Your task to perform on an android device: empty trash in google photos Image 0: 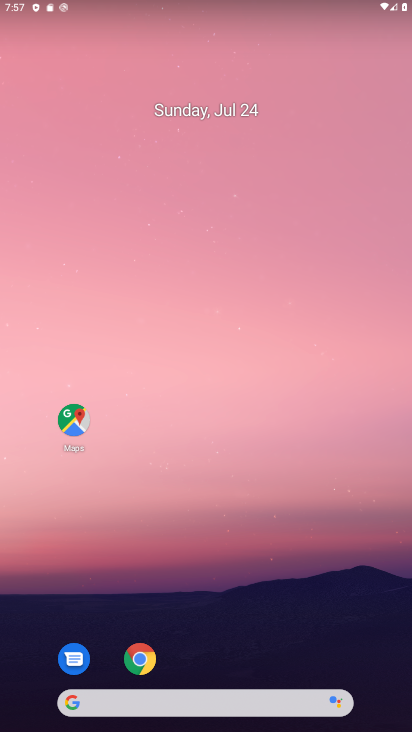
Step 0: drag from (180, 14) to (192, 57)
Your task to perform on an android device: empty trash in google photos Image 1: 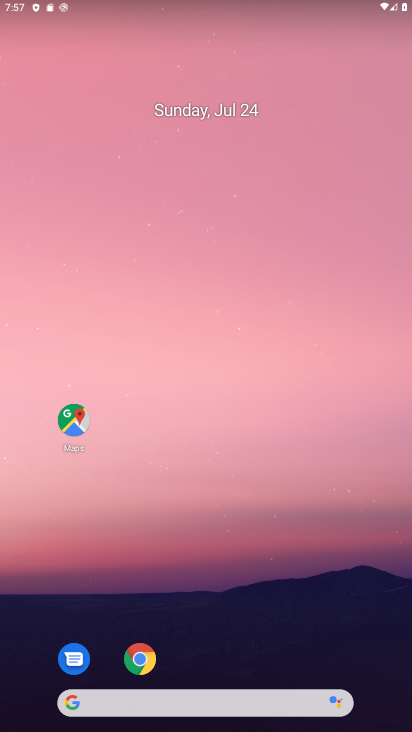
Step 1: drag from (244, 672) to (209, 11)
Your task to perform on an android device: empty trash in google photos Image 2: 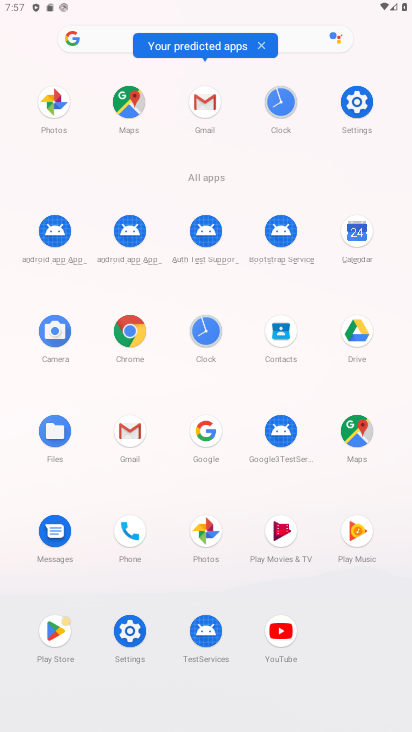
Step 2: click (135, 443)
Your task to perform on an android device: empty trash in google photos Image 3: 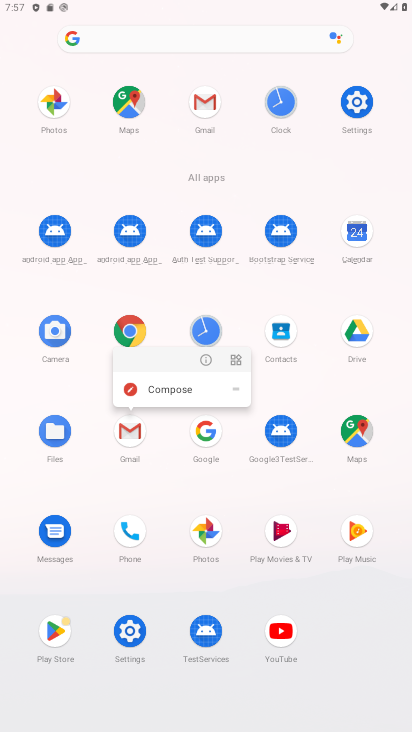
Step 3: click (210, 542)
Your task to perform on an android device: empty trash in google photos Image 4: 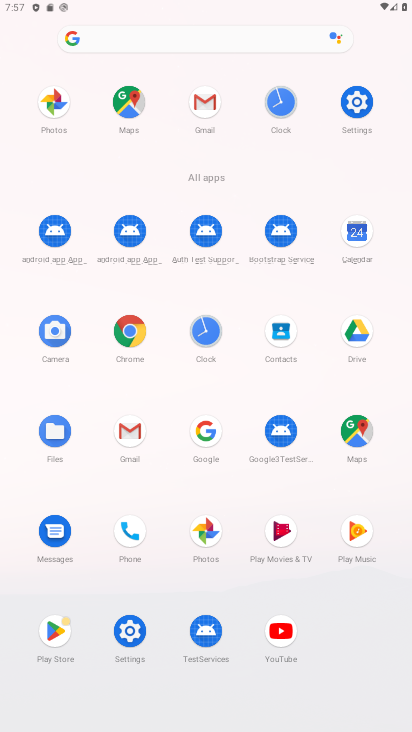
Step 4: click (217, 555)
Your task to perform on an android device: empty trash in google photos Image 5: 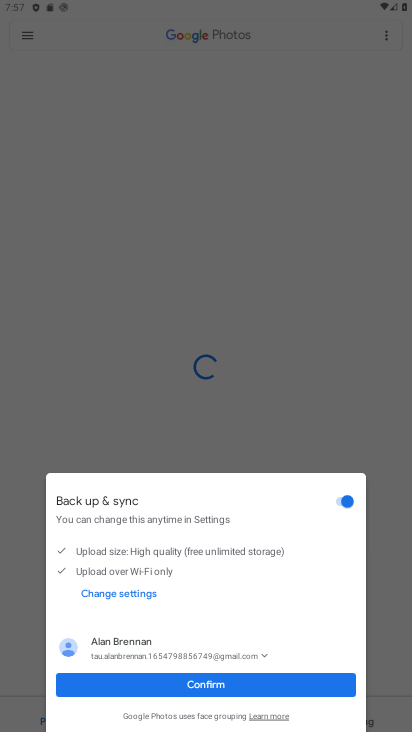
Step 5: click (207, 690)
Your task to perform on an android device: empty trash in google photos Image 6: 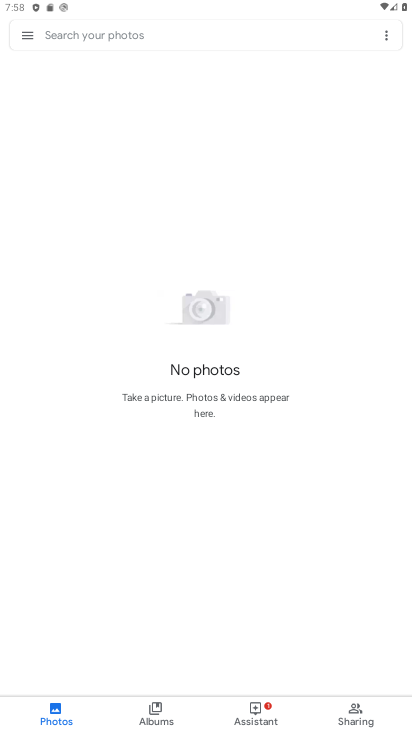
Step 6: click (25, 41)
Your task to perform on an android device: empty trash in google photos Image 7: 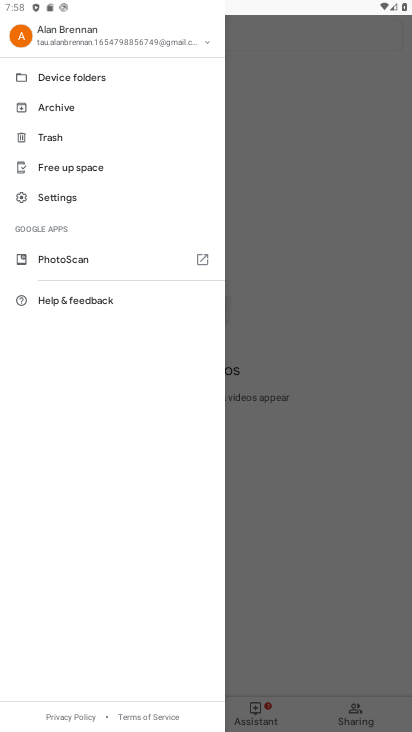
Step 7: click (56, 134)
Your task to perform on an android device: empty trash in google photos Image 8: 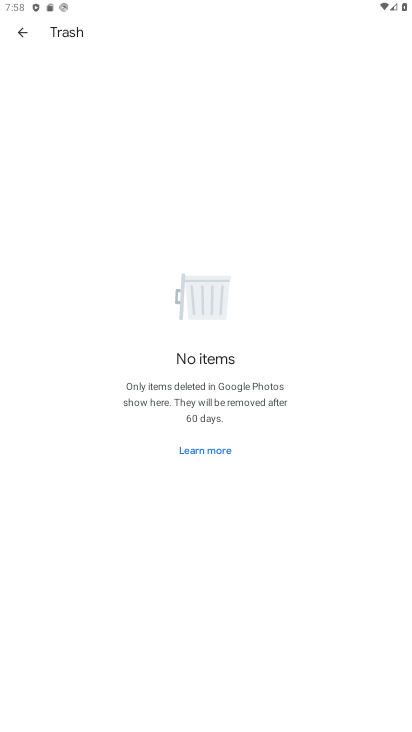
Step 8: task complete